Your task to perform on an android device: Open network settings Image 0: 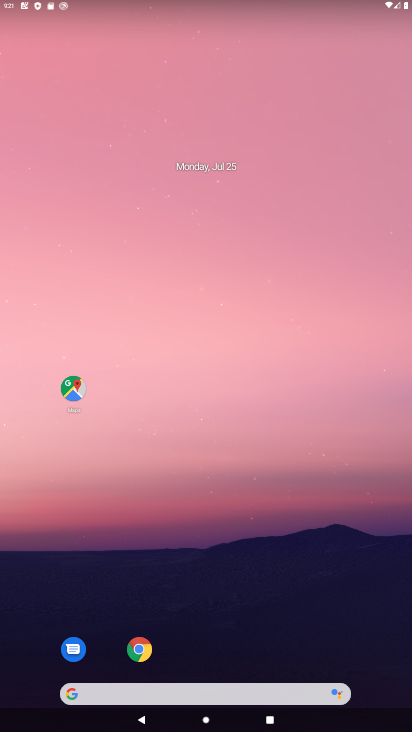
Step 0: drag from (304, 612) to (233, 2)
Your task to perform on an android device: Open network settings Image 1: 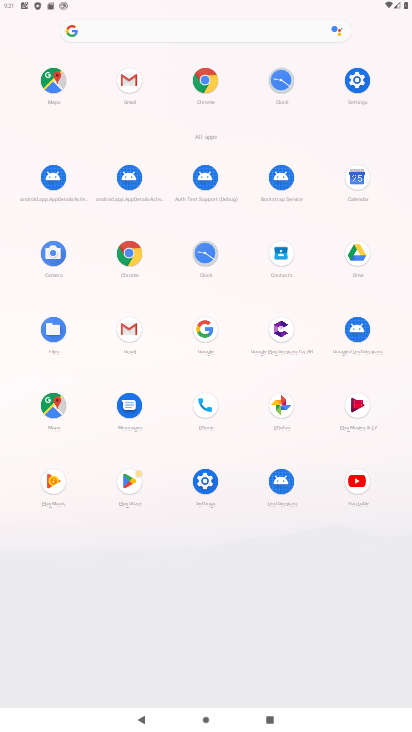
Step 1: click (360, 83)
Your task to perform on an android device: Open network settings Image 2: 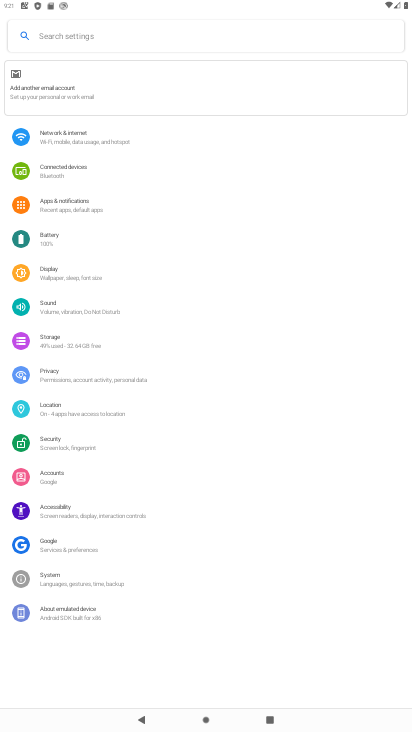
Step 2: click (95, 141)
Your task to perform on an android device: Open network settings Image 3: 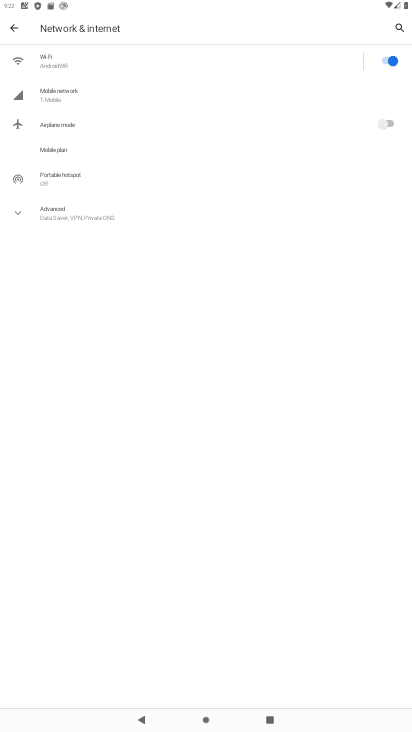
Step 3: task complete